Your task to perform on an android device: change timer sound Image 0: 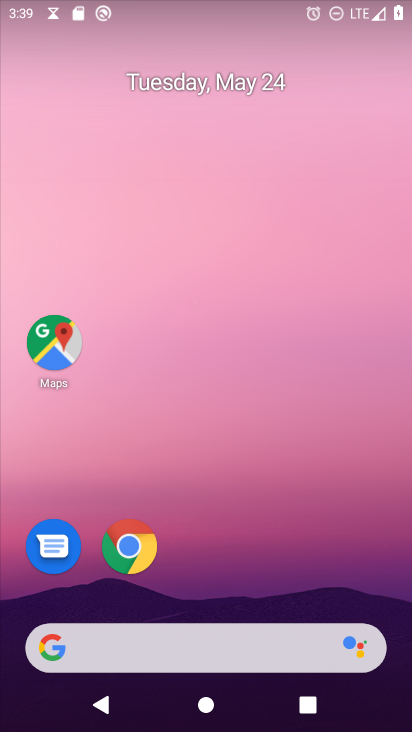
Step 0: drag from (263, 640) to (256, 38)
Your task to perform on an android device: change timer sound Image 1: 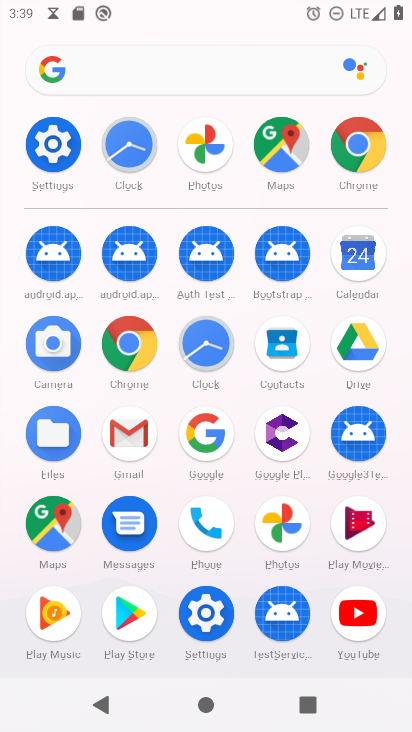
Step 1: click (202, 342)
Your task to perform on an android device: change timer sound Image 2: 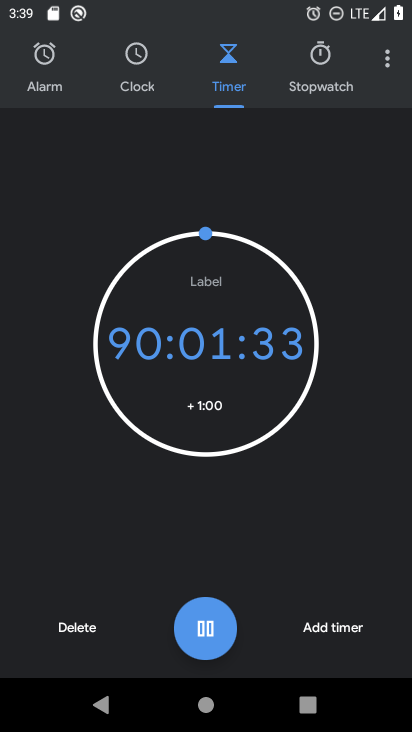
Step 2: click (391, 53)
Your task to perform on an android device: change timer sound Image 3: 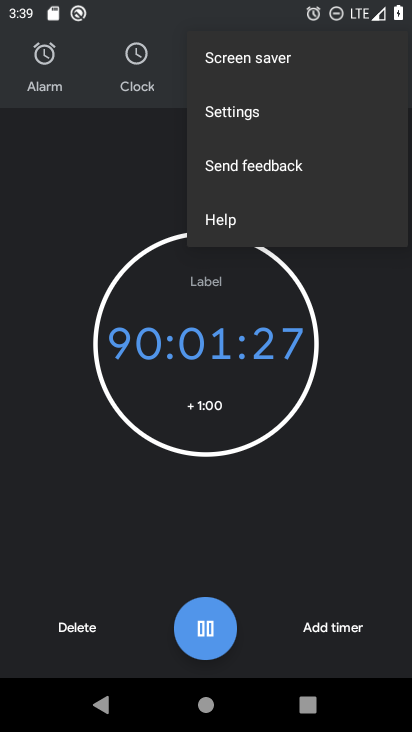
Step 3: click (268, 121)
Your task to perform on an android device: change timer sound Image 4: 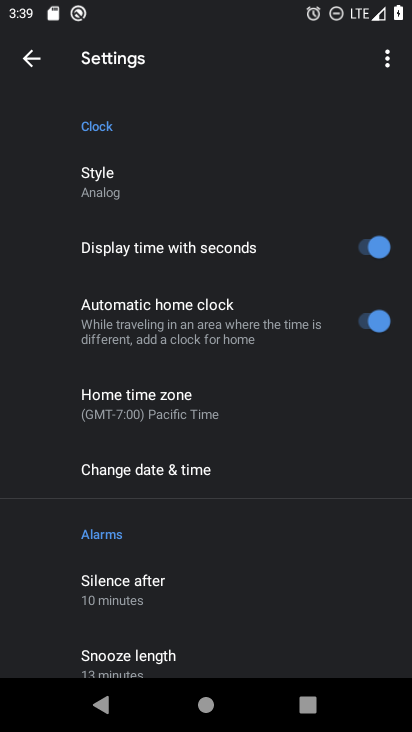
Step 4: drag from (187, 584) to (216, 27)
Your task to perform on an android device: change timer sound Image 5: 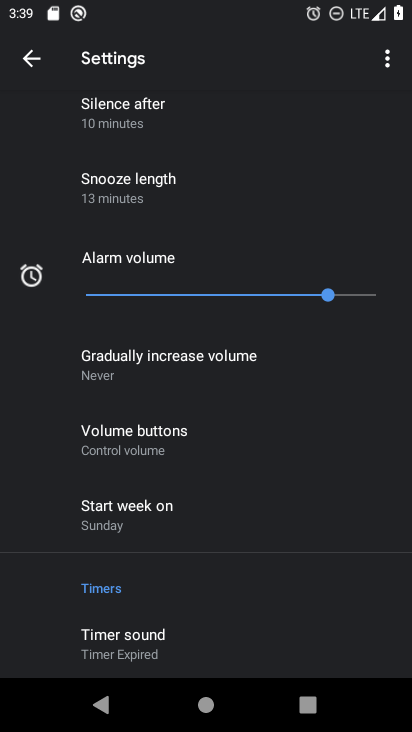
Step 5: drag from (211, 611) to (232, 170)
Your task to perform on an android device: change timer sound Image 6: 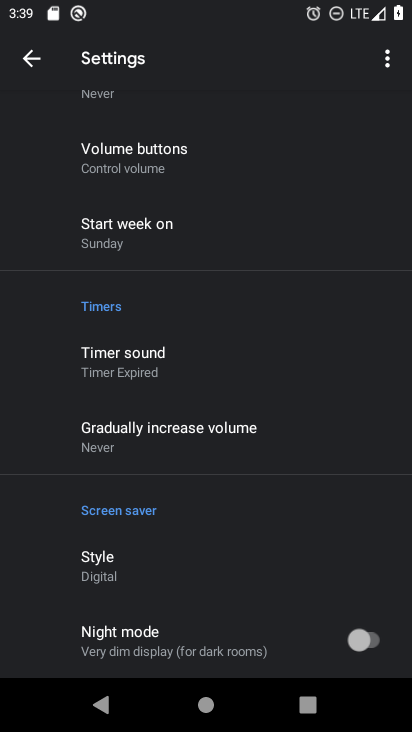
Step 6: drag from (149, 623) to (154, 402)
Your task to perform on an android device: change timer sound Image 7: 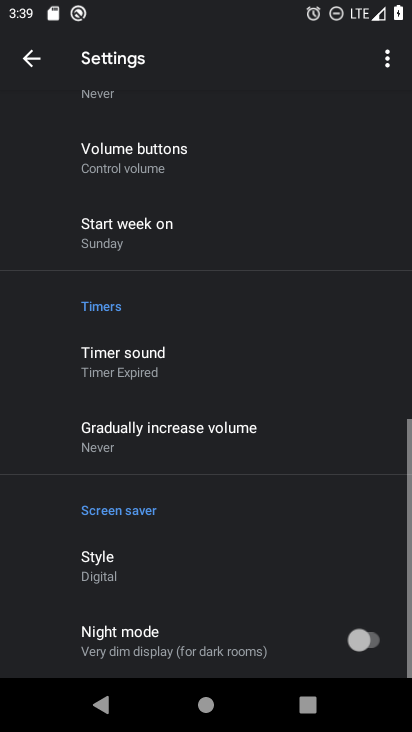
Step 7: click (159, 369)
Your task to perform on an android device: change timer sound Image 8: 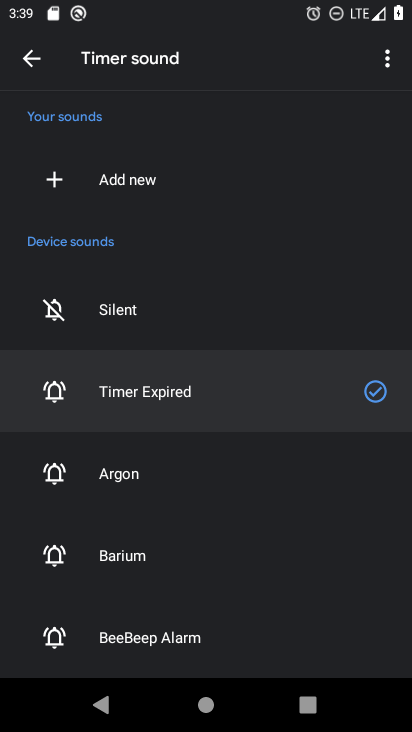
Step 8: click (124, 477)
Your task to perform on an android device: change timer sound Image 9: 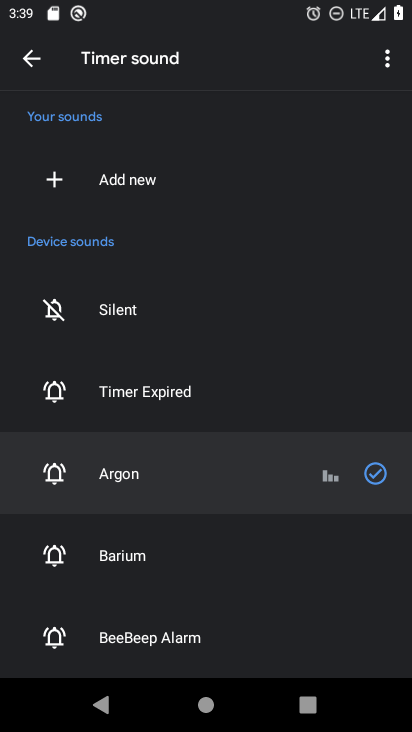
Step 9: task complete